Your task to perform on an android device: uninstall "Etsy: Buy & Sell Unique Items" Image 0: 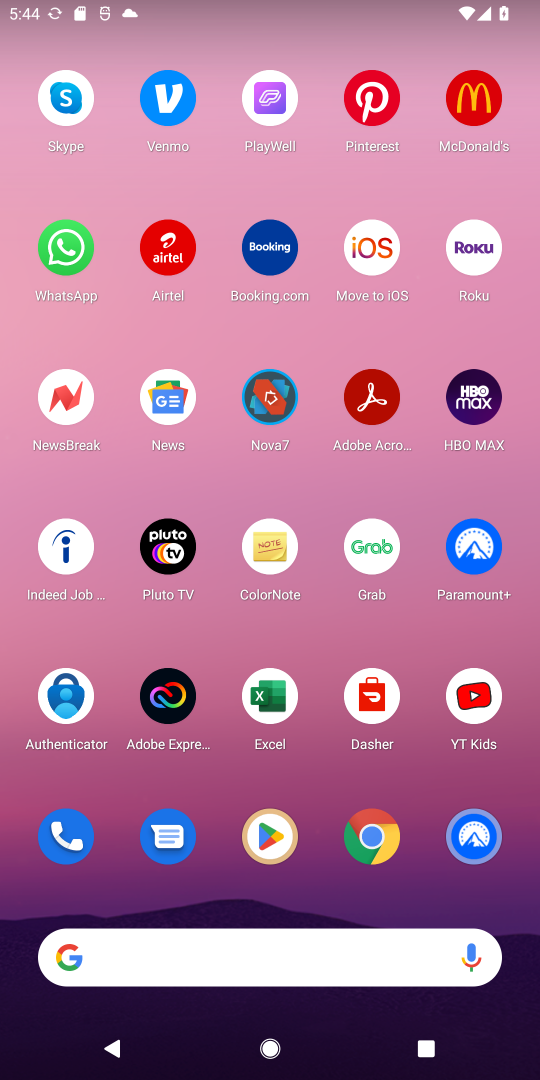
Step 0: press home button
Your task to perform on an android device: uninstall "Etsy: Buy & Sell Unique Items" Image 1: 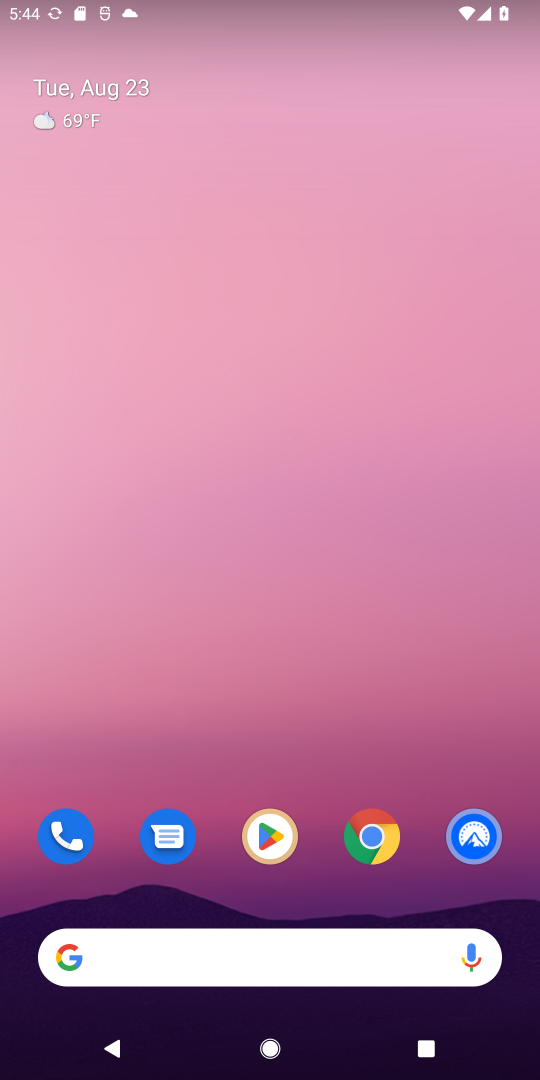
Step 1: click (270, 836)
Your task to perform on an android device: uninstall "Etsy: Buy & Sell Unique Items" Image 2: 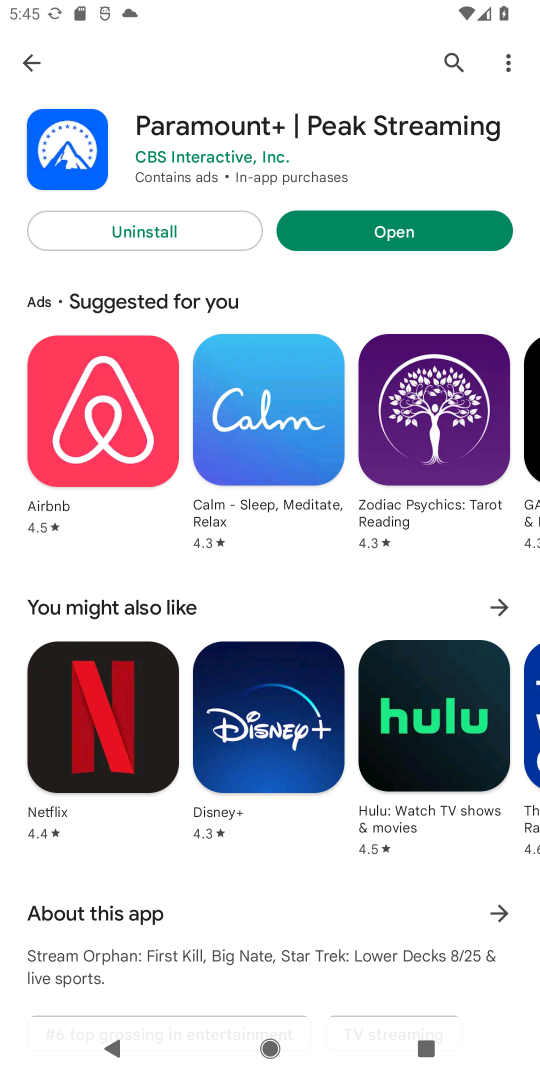
Step 2: click (455, 64)
Your task to perform on an android device: uninstall "Etsy: Buy & Sell Unique Items" Image 3: 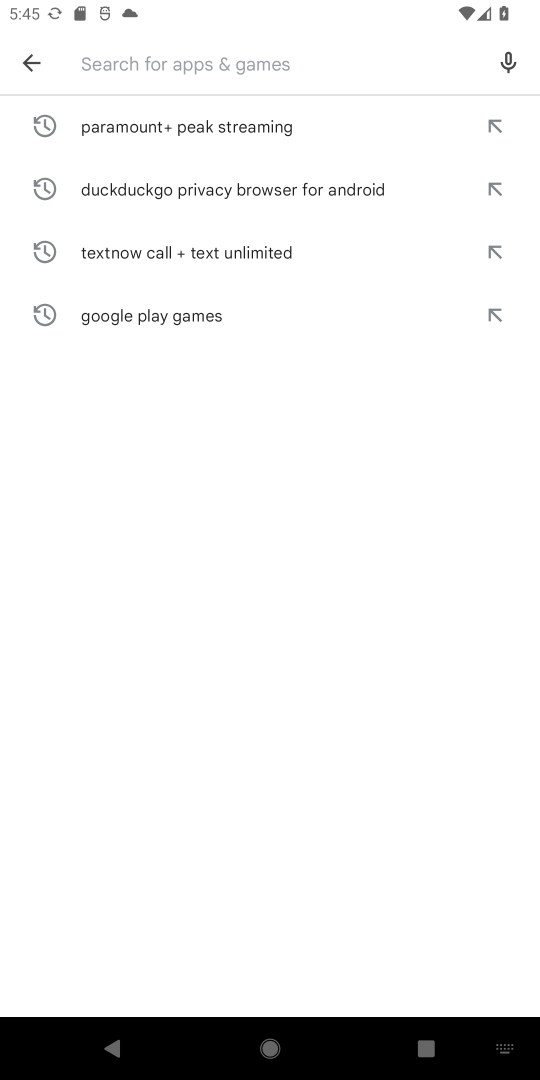
Step 3: type "Etsy: Buy & Sell Unique Items"
Your task to perform on an android device: uninstall "Etsy: Buy & Sell Unique Items" Image 4: 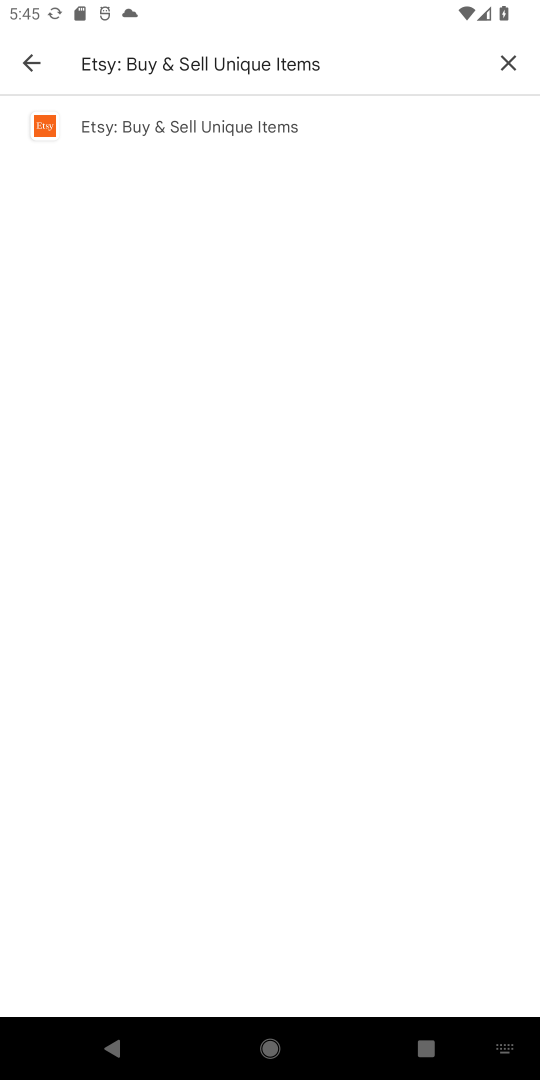
Step 4: click (151, 125)
Your task to perform on an android device: uninstall "Etsy: Buy & Sell Unique Items" Image 5: 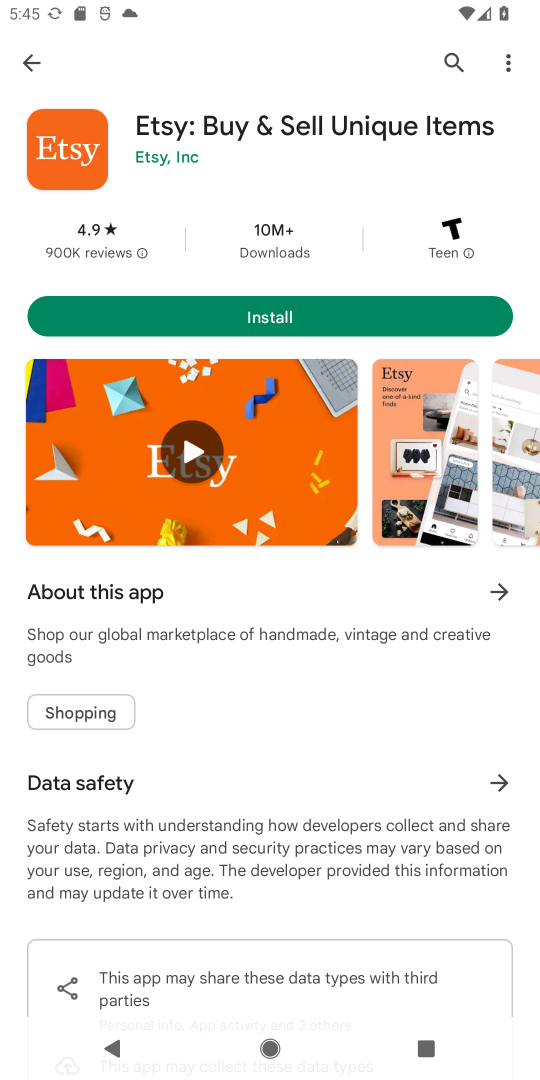
Step 5: task complete